Your task to perform on an android device: refresh tabs in the chrome app Image 0: 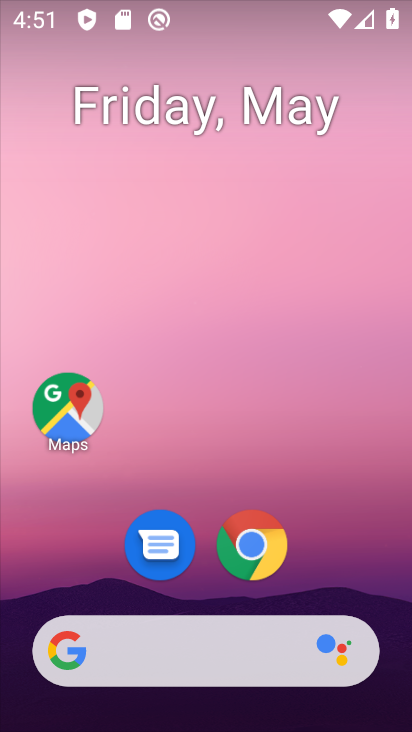
Step 0: click (322, 336)
Your task to perform on an android device: refresh tabs in the chrome app Image 1: 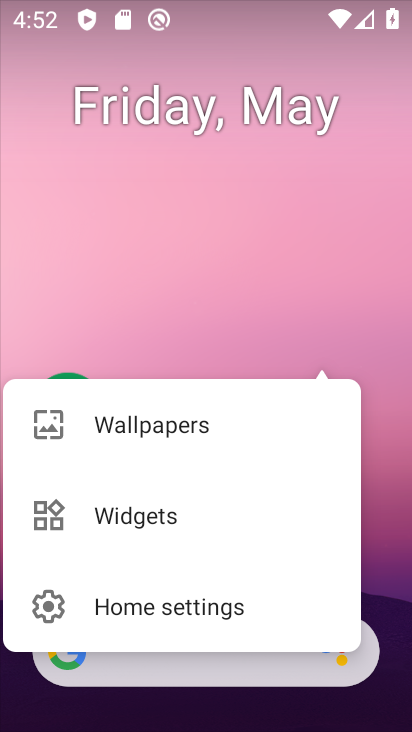
Step 1: press home button
Your task to perform on an android device: refresh tabs in the chrome app Image 2: 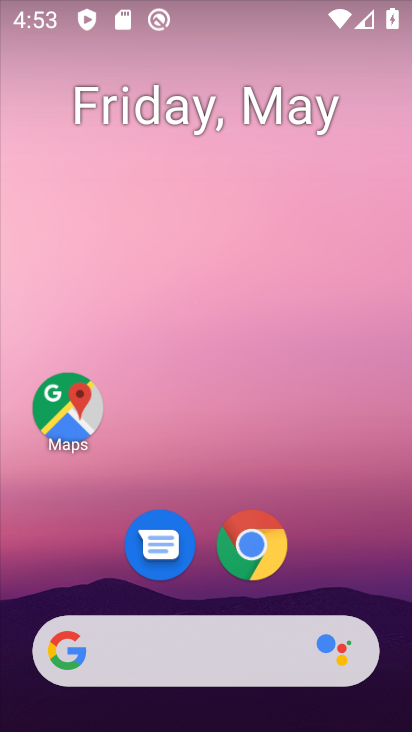
Step 2: click (249, 549)
Your task to perform on an android device: refresh tabs in the chrome app Image 3: 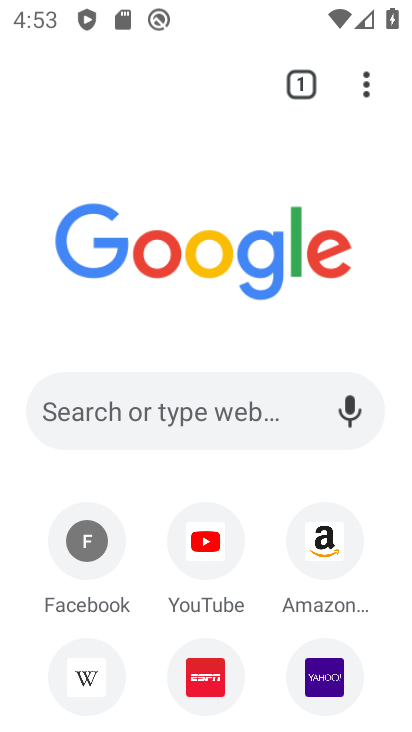
Step 3: click (364, 87)
Your task to perform on an android device: refresh tabs in the chrome app Image 4: 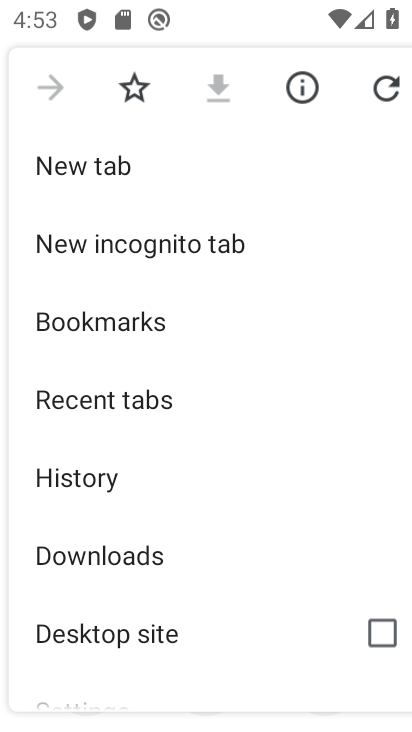
Step 4: click (378, 85)
Your task to perform on an android device: refresh tabs in the chrome app Image 5: 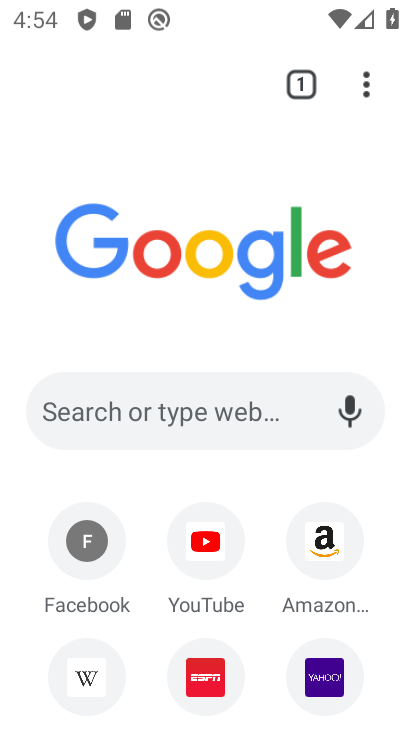
Step 5: task complete